Your task to perform on an android device: Open location settings Image 0: 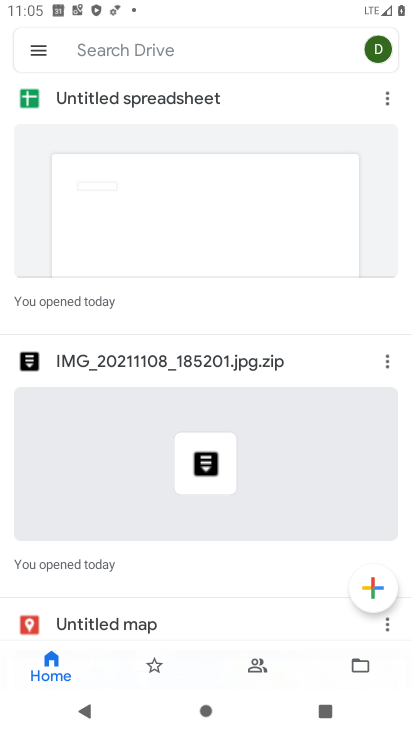
Step 0: press home button
Your task to perform on an android device: Open location settings Image 1: 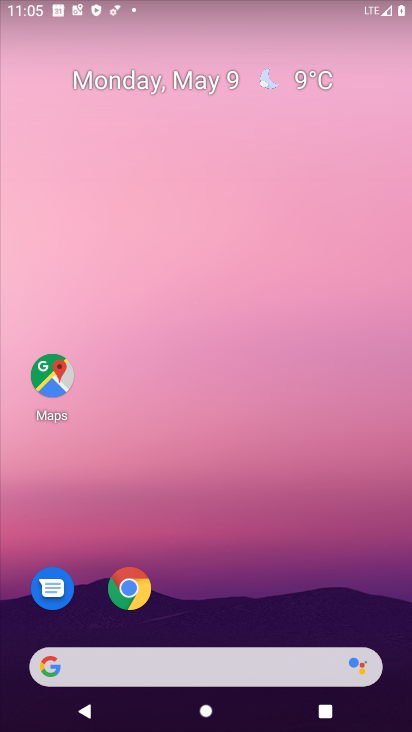
Step 1: drag from (153, 664) to (324, 91)
Your task to perform on an android device: Open location settings Image 2: 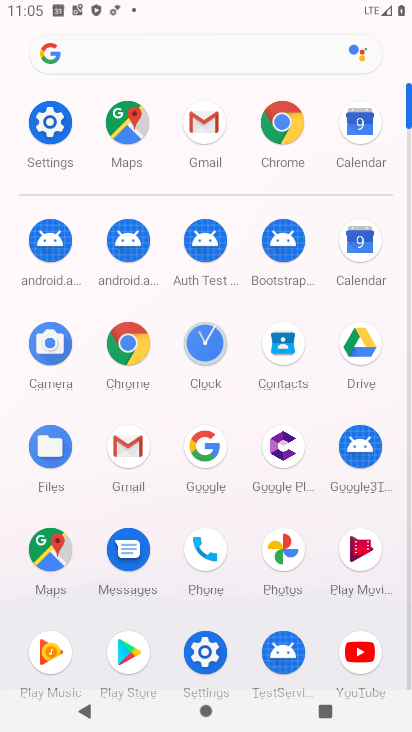
Step 2: click (47, 127)
Your task to perform on an android device: Open location settings Image 3: 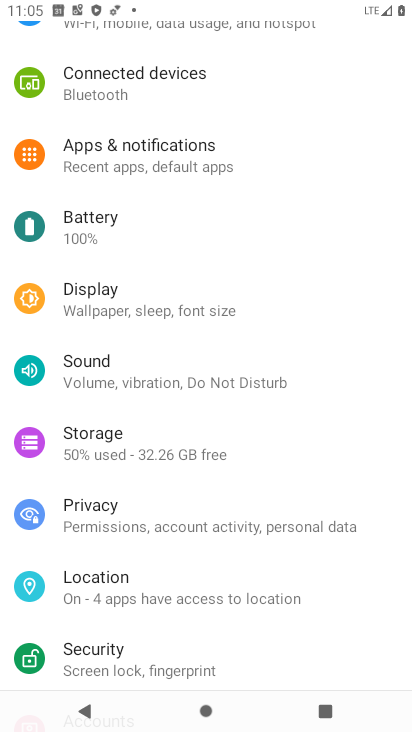
Step 3: click (132, 591)
Your task to perform on an android device: Open location settings Image 4: 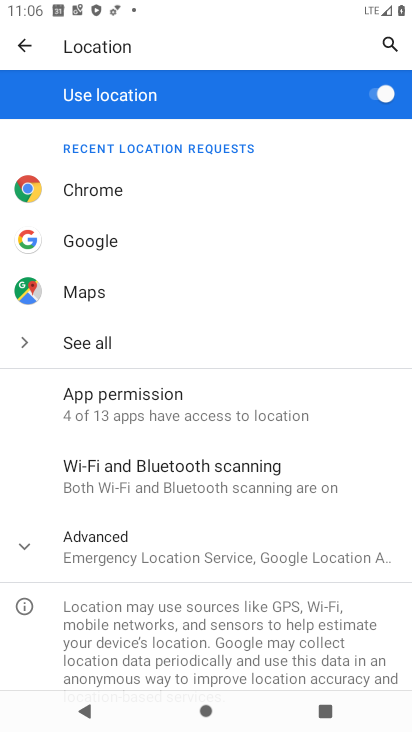
Step 4: task complete